Your task to perform on an android device: Open battery settings Image 0: 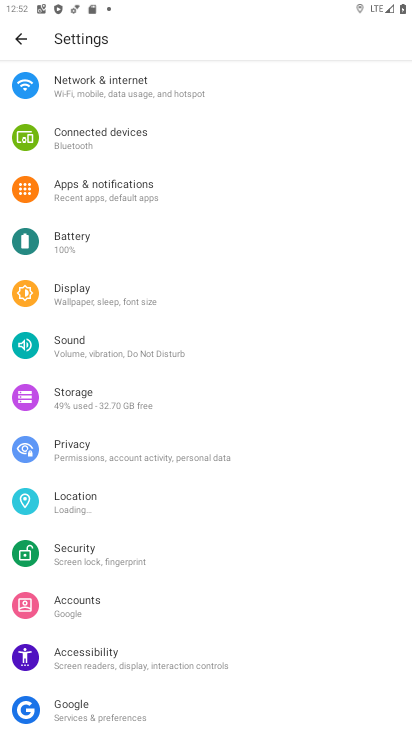
Step 0: click (72, 234)
Your task to perform on an android device: Open battery settings Image 1: 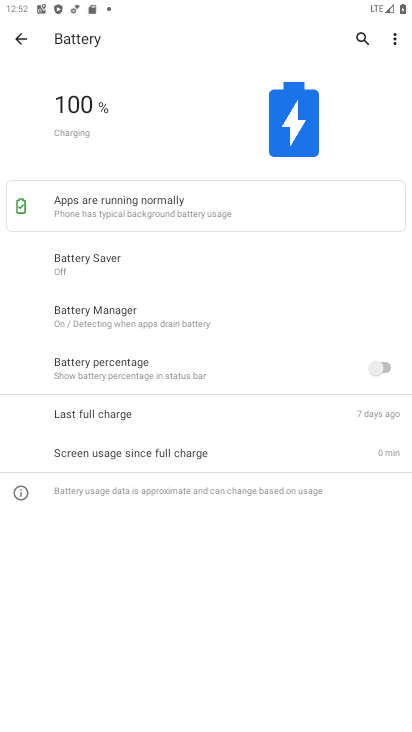
Step 1: task complete